Your task to perform on an android device: manage bookmarks in the chrome app Image 0: 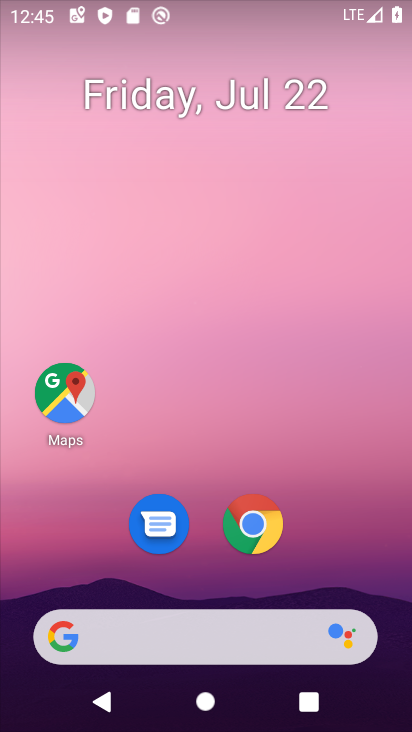
Step 0: click (262, 527)
Your task to perform on an android device: manage bookmarks in the chrome app Image 1: 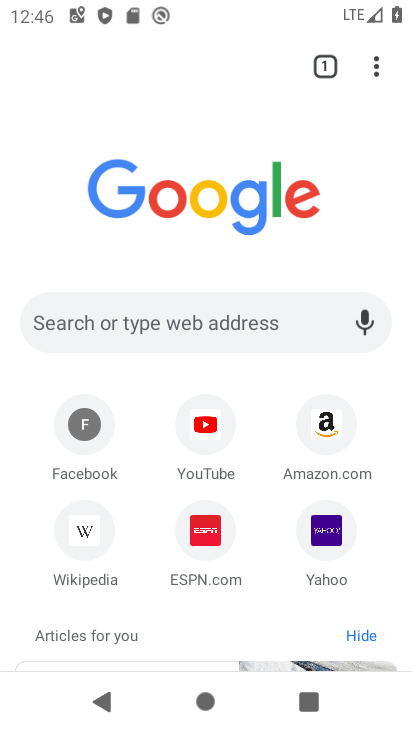
Step 1: click (372, 75)
Your task to perform on an android device: manage bookmarks in the chrome app Image 2: 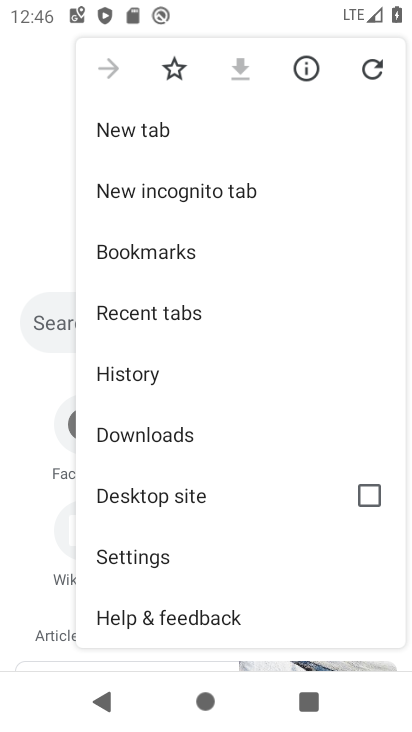
Step 2: click (202, 250)
Your task to perform on an android device: manage bookmarks in the chrome app Image 3: 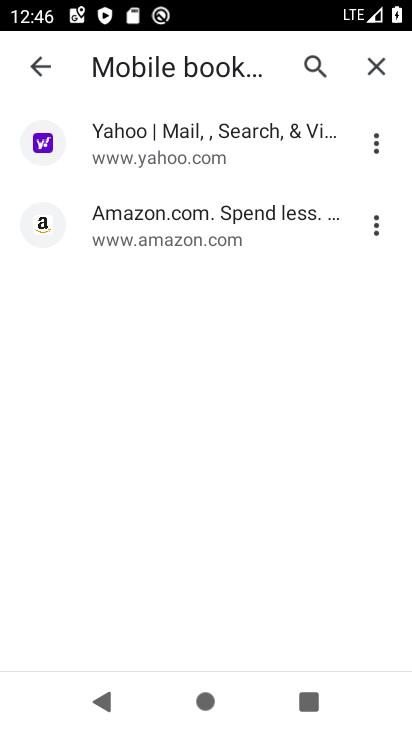
Step 3: click (372, 223)
Your task to perform on an android device: manage bookmarks in the chrome app Image 4: 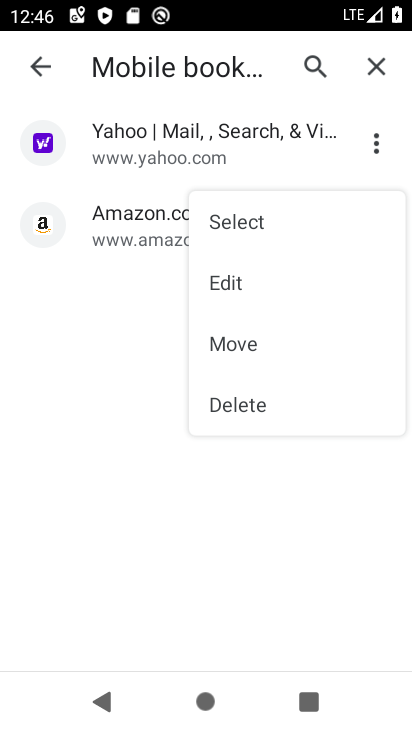
Step 4: click (285, 272)
Your task to perform on an android device: manage bookmarks in the chrome app Image 5: 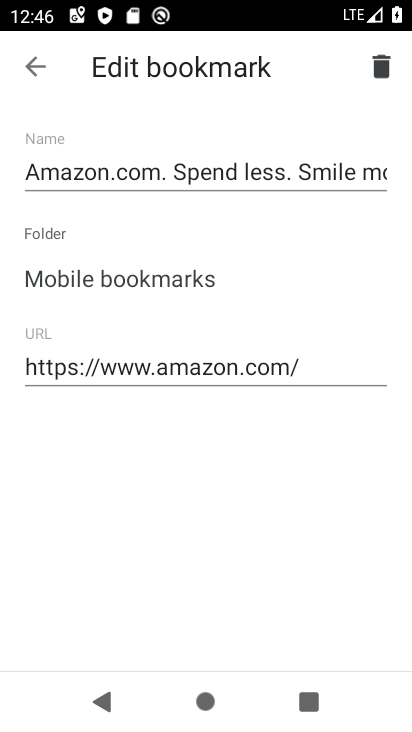
Step 5: task complete